Your task to perform on an android device: check data usage Image 0: 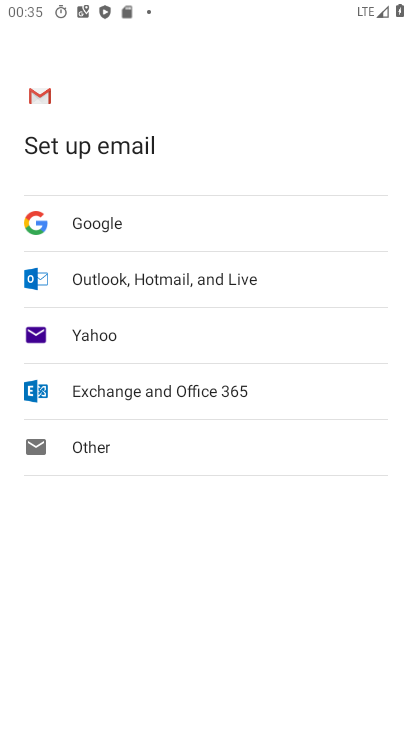
Step 0: press home button
Your task to perform on an android device: check data usage Image 1: 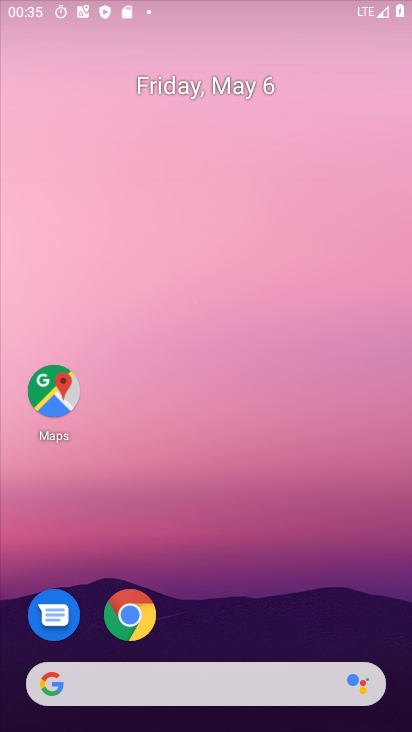
Step 1: drag from (223, 594) to (277, 82)
Your task to perform on an android device: check data usage Image 2: 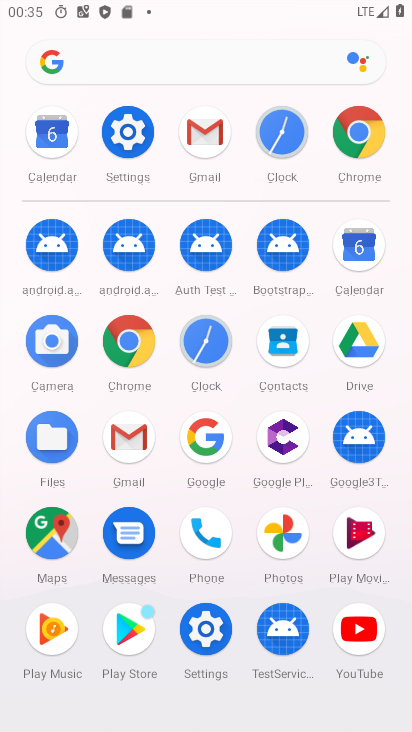
Step 2: click (125, 130)
Your task to perform on an android device: check data usage Image 3: 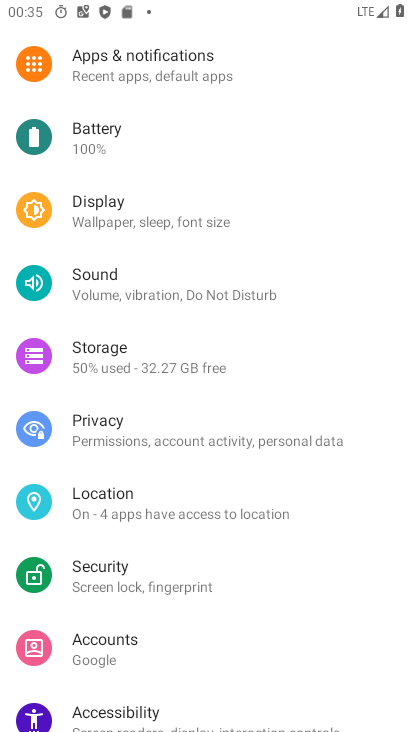
Step 3: drag from (132, 358) to (216, 592)
Your task to perform on an android device: check data usage Image 4: 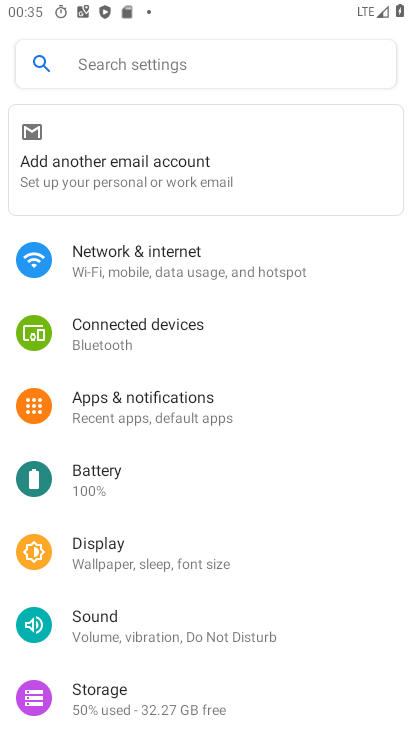
Step 4: click (163, 262)
Your task to perform on an android device: check data usage Image 5: 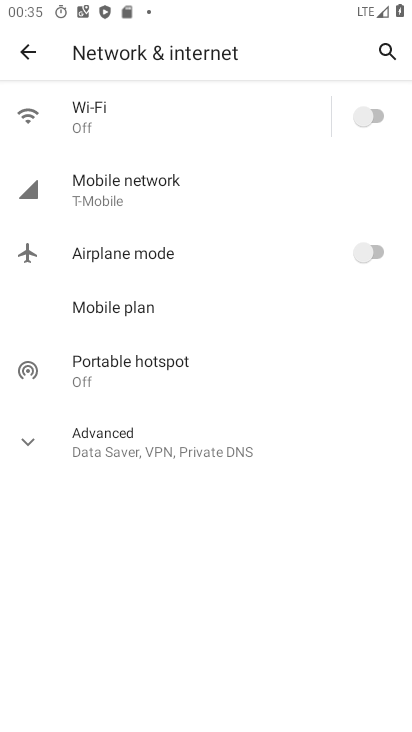
Step 5: click (140, 188)
Your task to perform on an android device: check data usage Image 6: 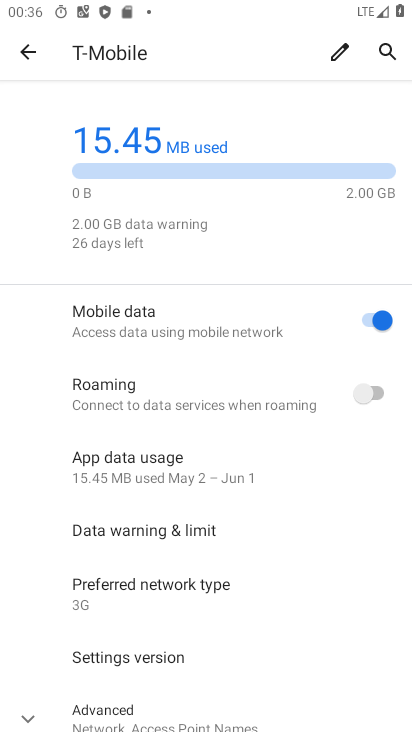
Step 6: task complete